Your task to perform on an android device: stop showing notifications on the lock screen Image 0: 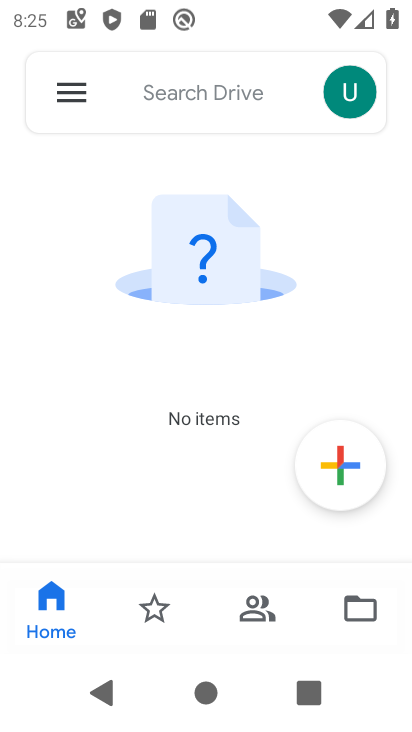
Step 0: press home button
Your task to perform on an android device: stop showing notifications on the lock screen Image 1: 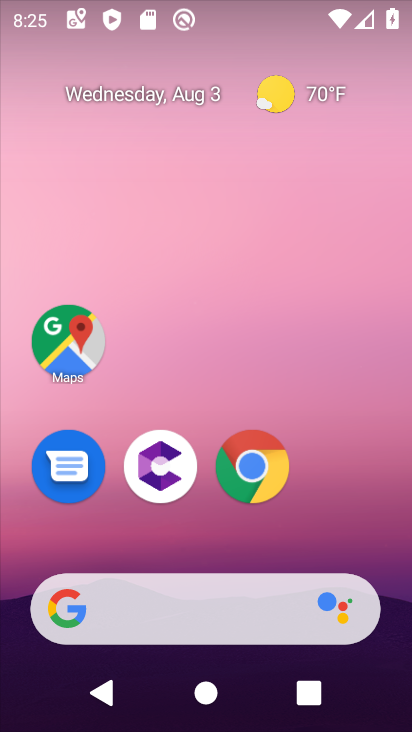
Step 1: drag from (320, 547) to (314, 151)
Your task to perform on an android device: stop showing notifications on the lock screen Image 2: 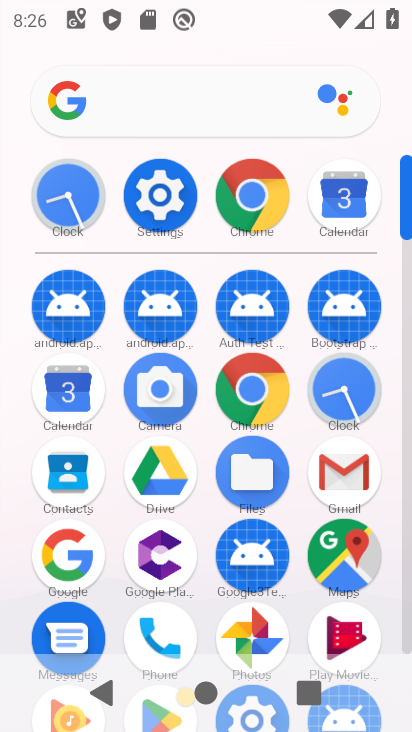
Step 2: click (155, 187)
Your task to perform on an android device: stop showing notifications on the lock screen Image 3: 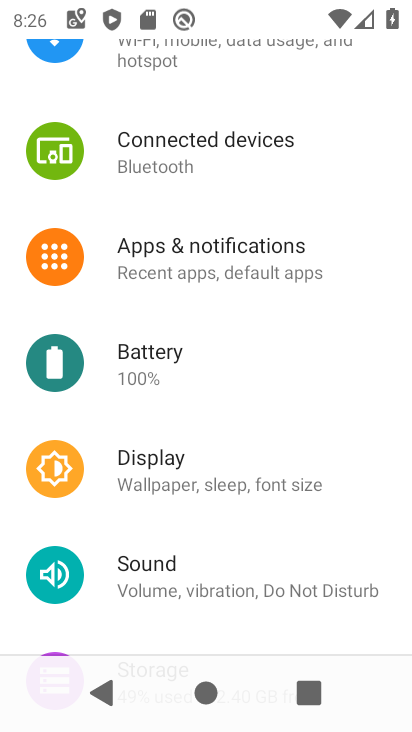
Step 3: click (177, 274)
Your task to perform on an android device: stop showing notifications on the lock screen Image 4: 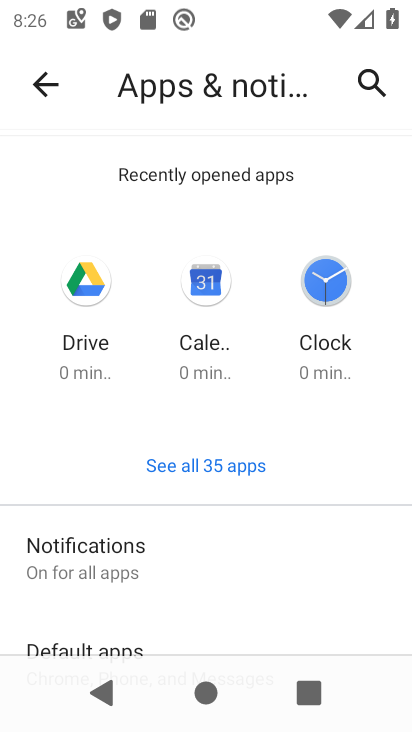
Step 4: click (85, 546)
Your task to perform on an android device: stop showing notifications on the lock screen Image 5: 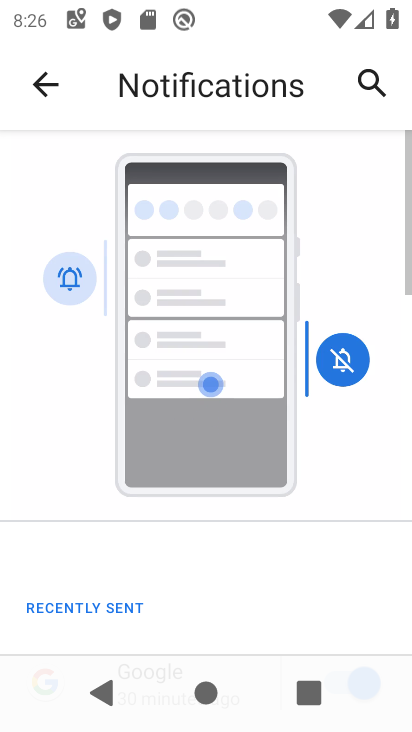
Step 5: drag from (329, 508) to (326, 229)
Your task to perform on an android device: stop showing notifications on the lock screen Image 6: 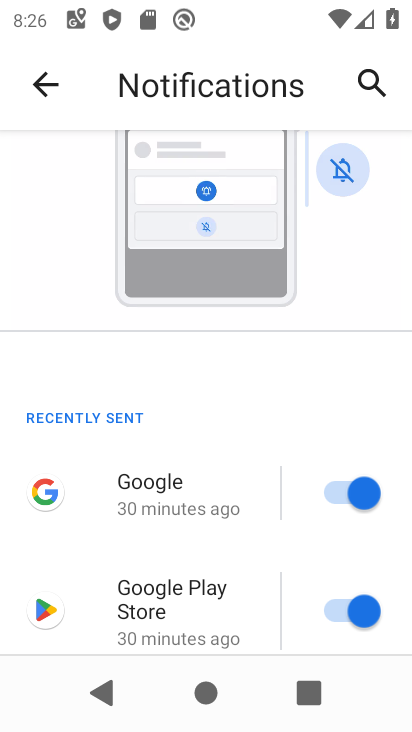
Step 6: drag from (253, 458) to (272, 150)
Your task to perform on an android device: stop showing notifications on the lock screen Image 7: 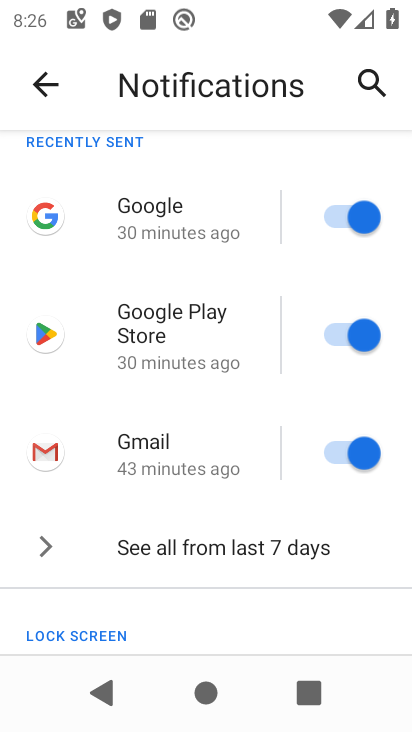
Step 7: drag from (238, 662) to (232, 348)
Your task to perform on an android device: stop showing notifications on the lock screen Image 8: 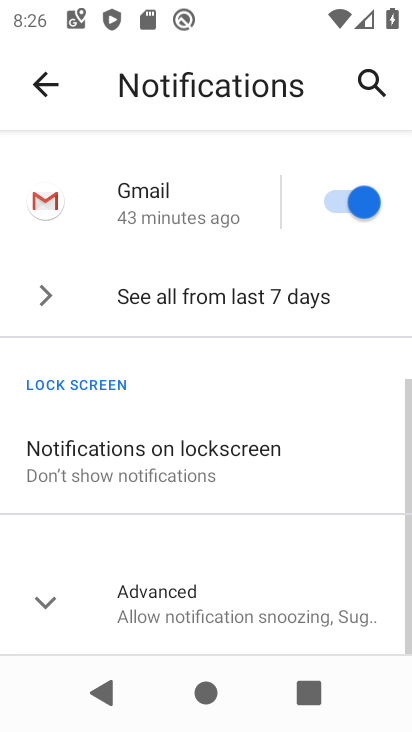
Step 8: click (167, 466)
Your task to perform on an android device: stop showing notifications on the lock screen Image 9: 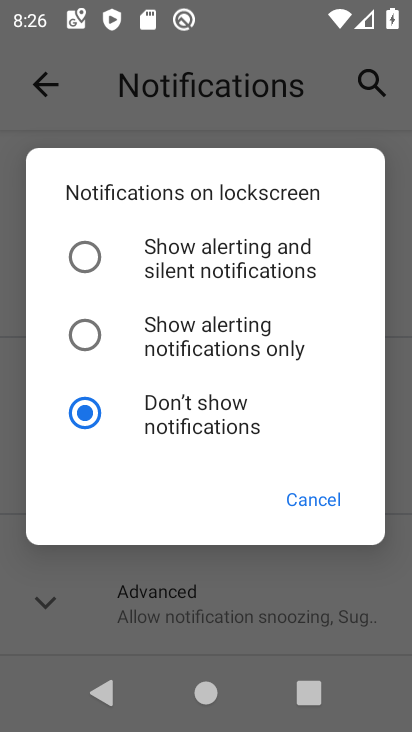
Step 9: task complete